Your task to perform on an android device: Go to sound settings Image 0: 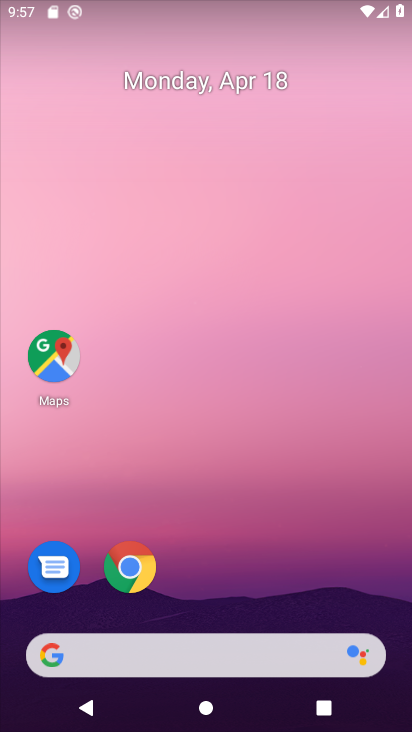
Step 0: drag from (243, 538) to (309, 140)
Your task to perform on an android device: Go to sound settings Image 1: 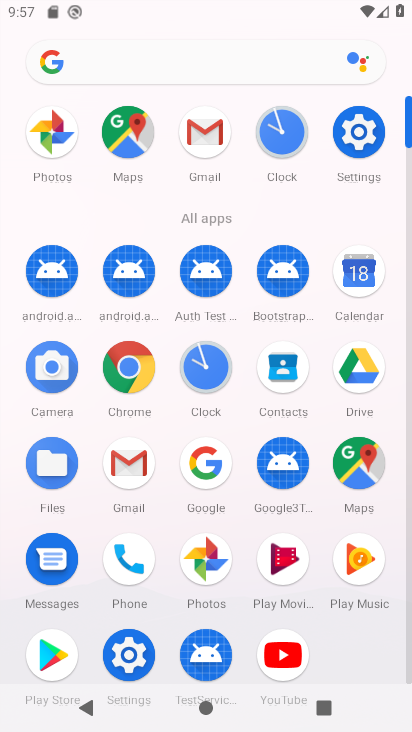
Step 1: drag from (227, 584) to (250, 219)
Your task to perform on an android device: Go to sound settings Image 2: 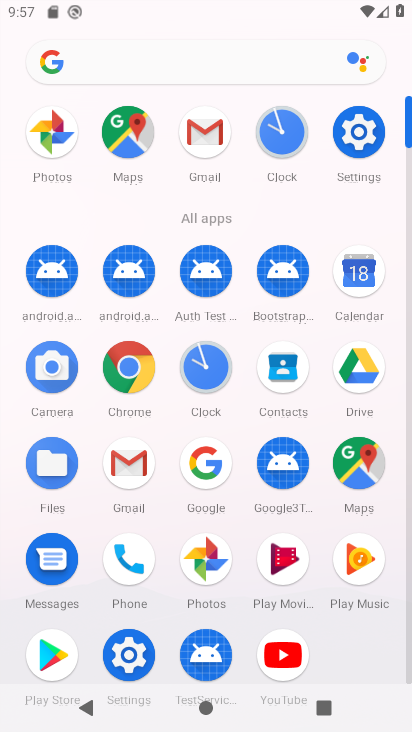
Step 2: click (125, 644)
Your task to perform on an android device: Go to sound settings Image 3: 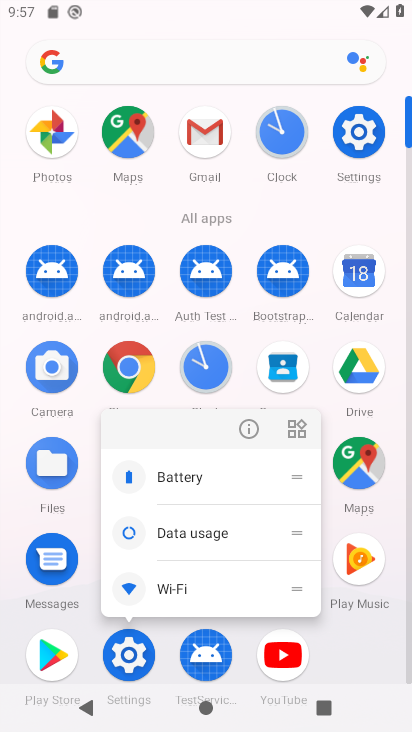
Step 3: click (250, 426)
Your task to perform on an android device: Go to sound settings Image 4: 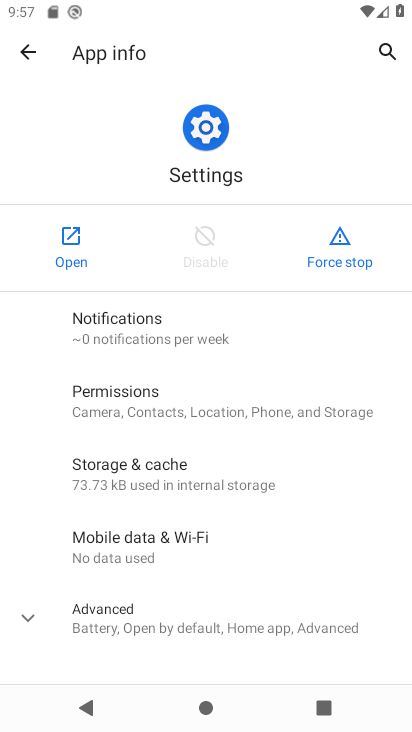
Step 4: click (78, 252)
Your task to perform on an android device: Go to sound settings Image 5: 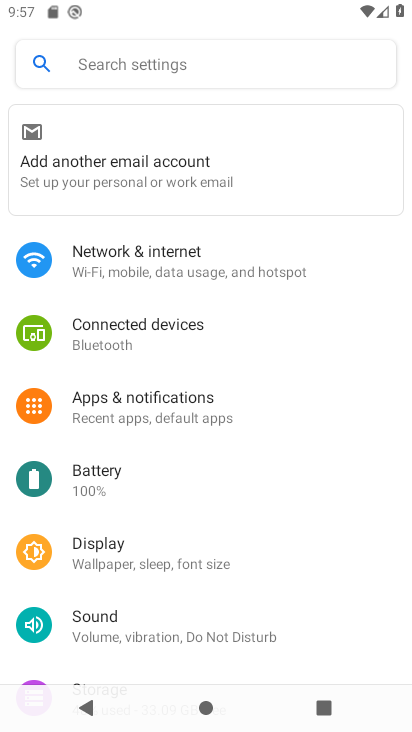
Step 5: drag from (206, 587) to (272, 345)
Your task to perform on an android device: Go to sound settings Image 6: 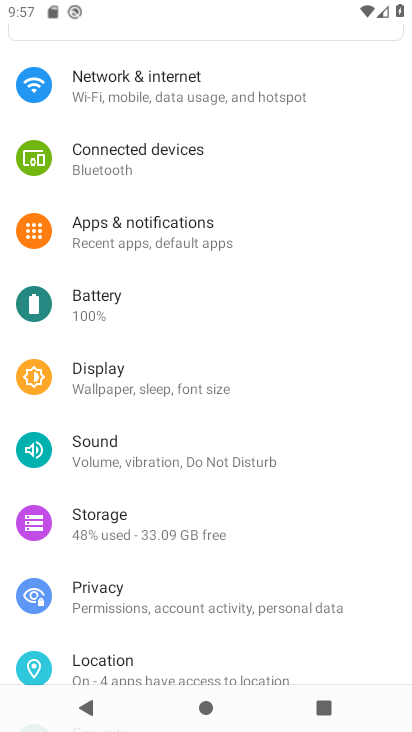
Step 6: click (140, 440)
Your task to perform on an android device: Go to sound settings Image 7: 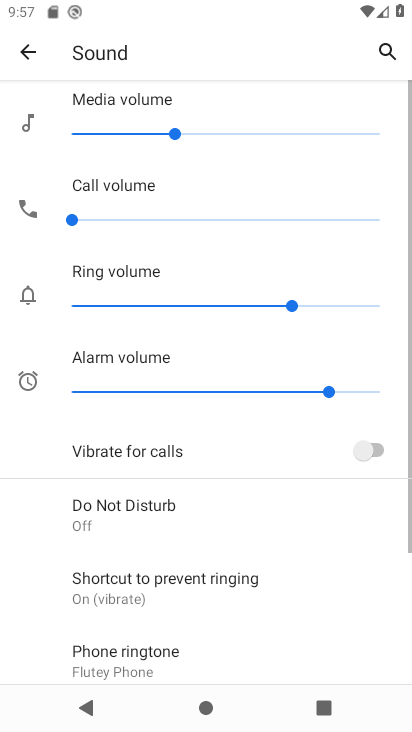
Step 7: task complete